Your task to perform on an android device: Open maps Image 0: 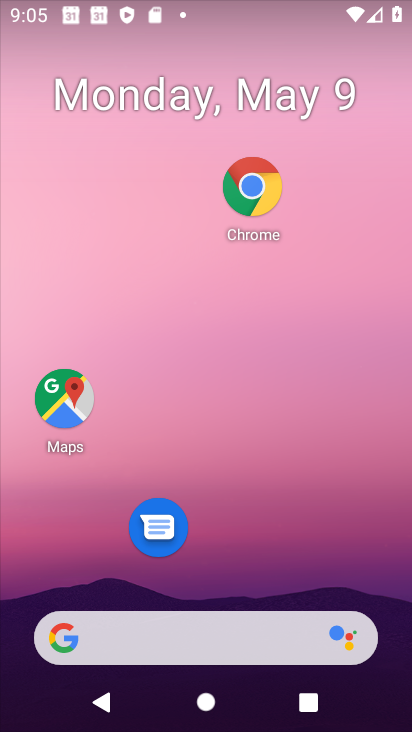
Step 0: click (69, 400)
Your task to perform on an android device: Open maps Image 1: 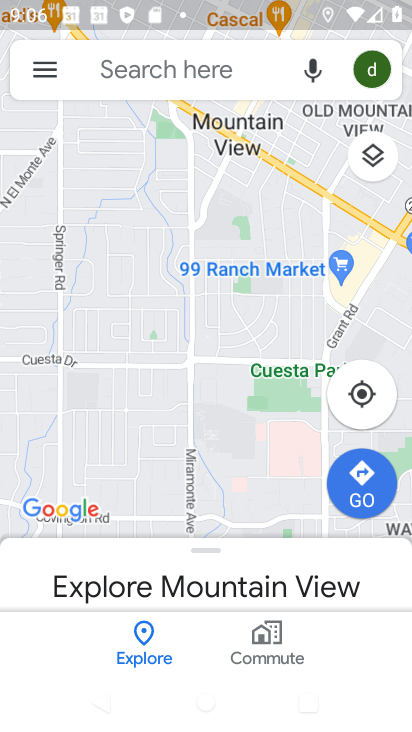
Step 1: task complete